Your task to perform on an android device: open app "Life360: Find Family & Friends" (install if not already installed) Image 0: 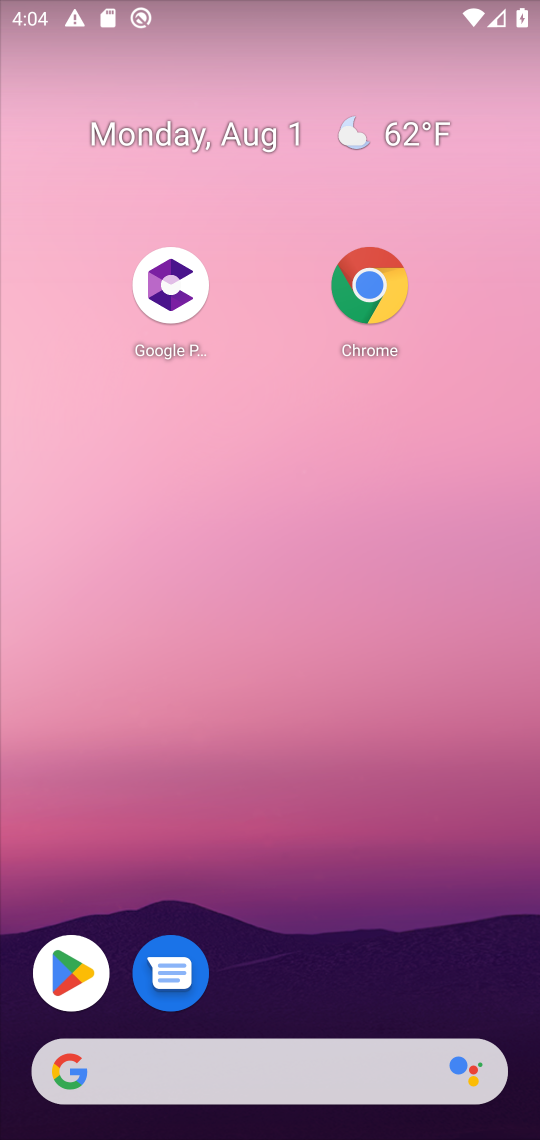
Step 0: drag from (344, 802) to (230, 188)
Your task to perform on an android device: open app "Life360: Find Family & Friends" (install if not already installed) Image 1: 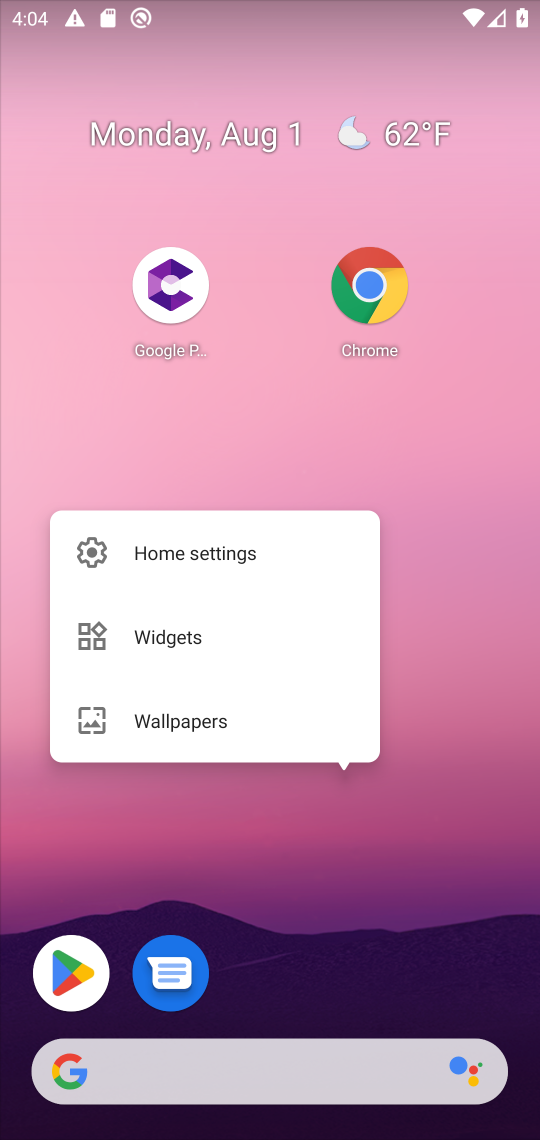
Step 1: click (284, 58)
Your task to perform on an android device: open app "Life360: Find Family & Friends" (install if not already installed) Image 2: 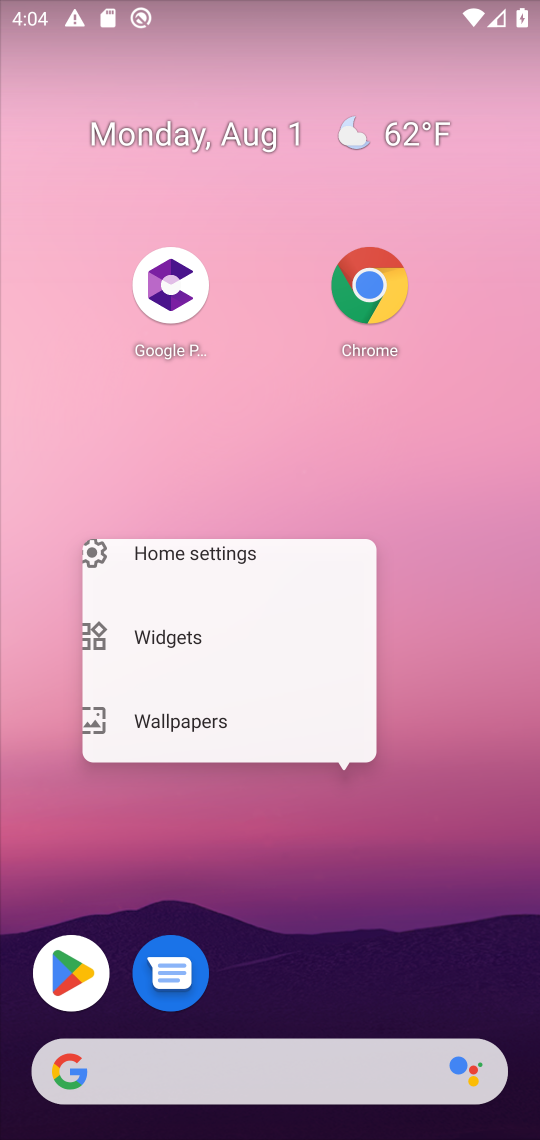
Step 2: drag from (360, 641) to (315, 64)
Your task to perform on an android device: open app "Life360: Find Family & Friends" (install if not already installed) Image 3: 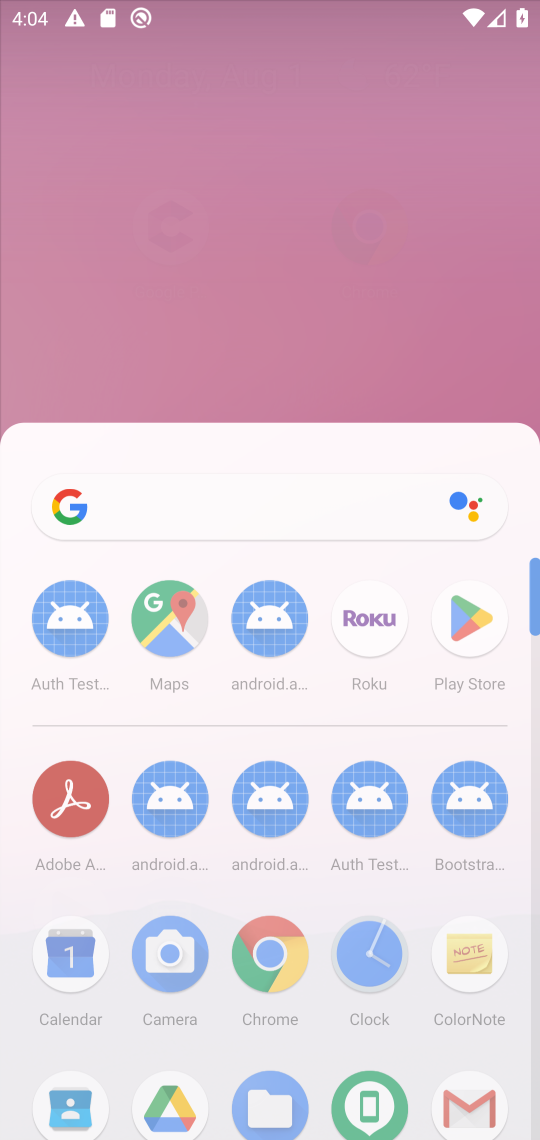
Step 3: drag from (371, 587) to (348, 323)
Your task to perform on an android device: open app "Life360: Find Family & Friends" (install if not already installed) Image 4: 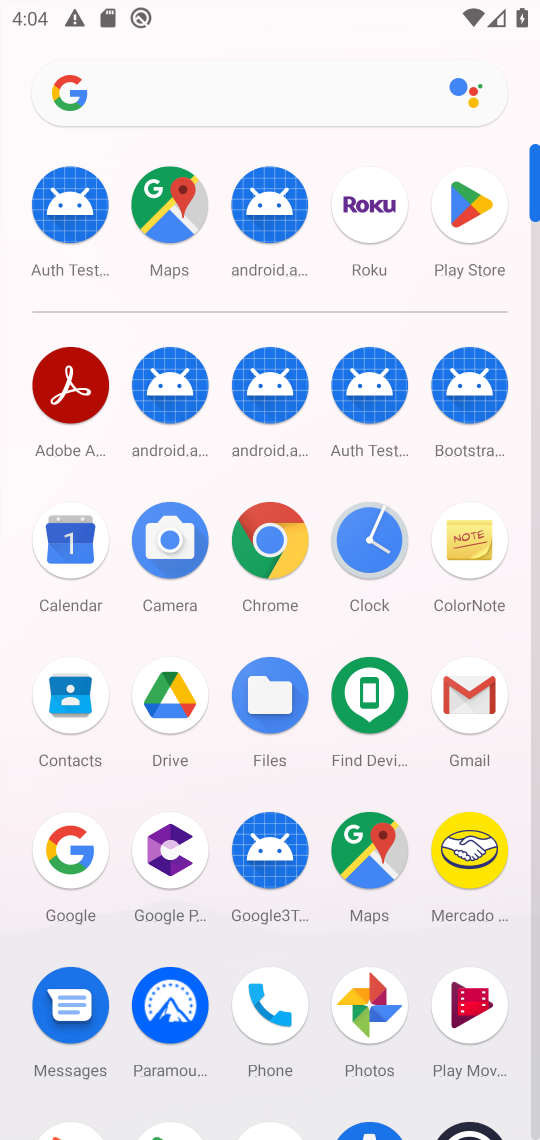
Step 4: drag from (304, 374) to (298, 47)
Your task to perform on an android device: open app "Life360: Find Family & Friends" (install if not already installed) Image 5: 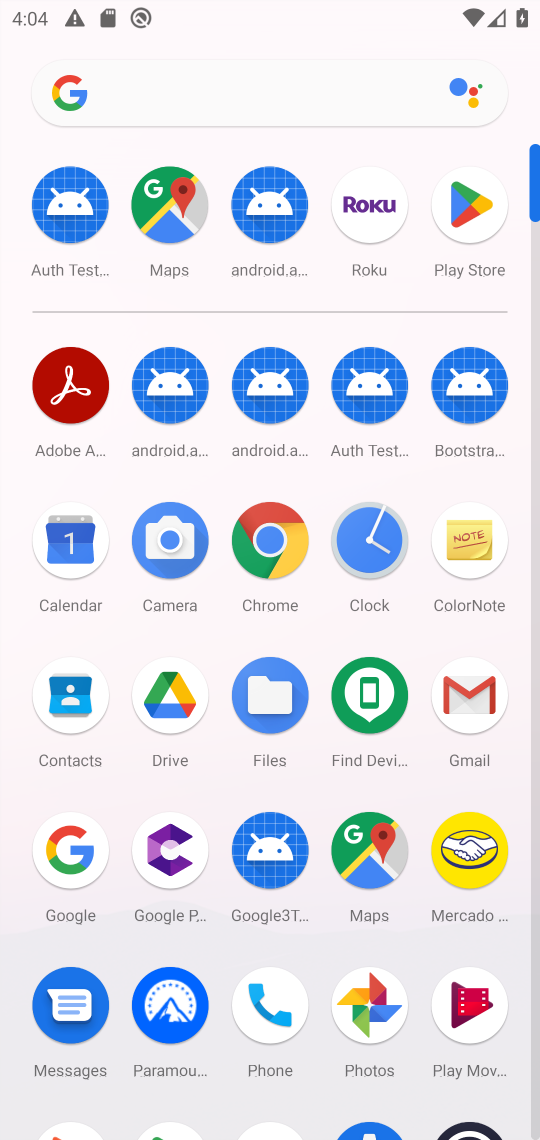
Step 5: click (474, 207)
Your task to perform on an android device: open app "Life360: Find Family & Friends" (install if not already installed) Image 6: 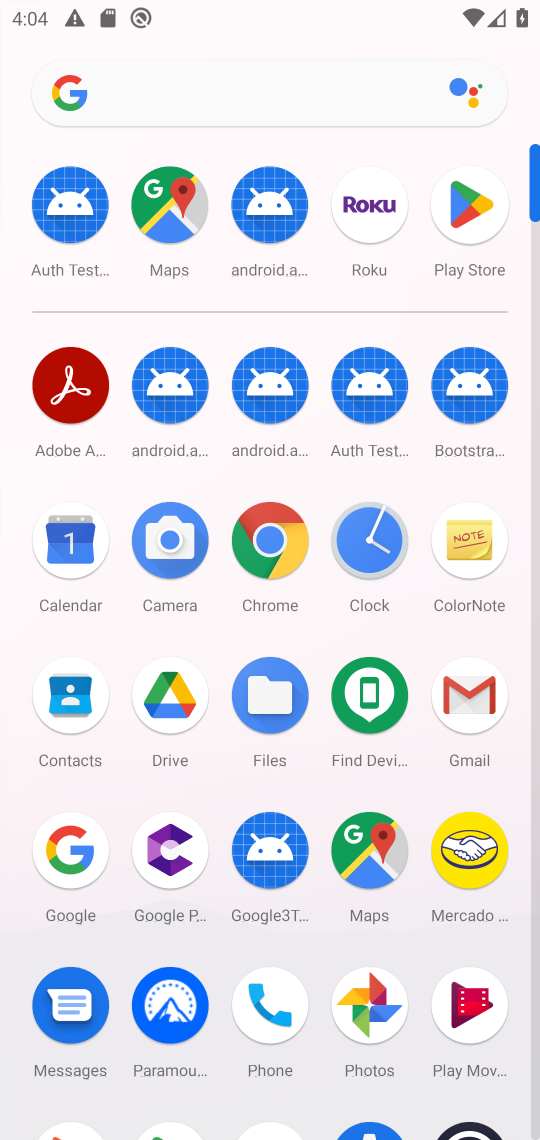
Step 6: click (471, 209)
Your task to perform on an android device: open app "Life360: Find Family & Friends" (install if not already installed) Image 7: 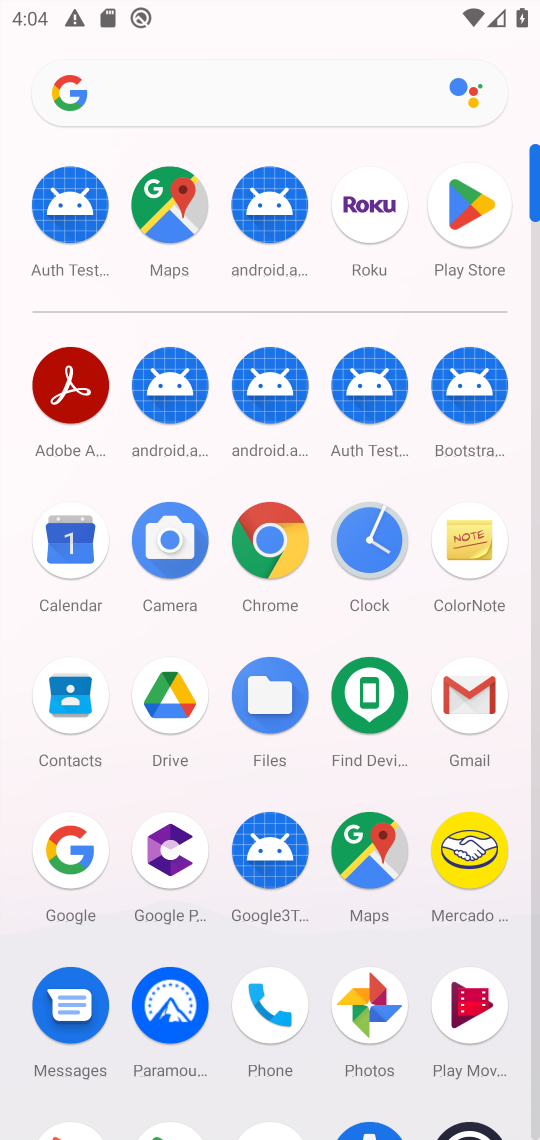
Step 7: click (471, 209)
Your task to perform on an android device: open app "Life360: Find Family & Friends" (install if not already installed) Image 8: 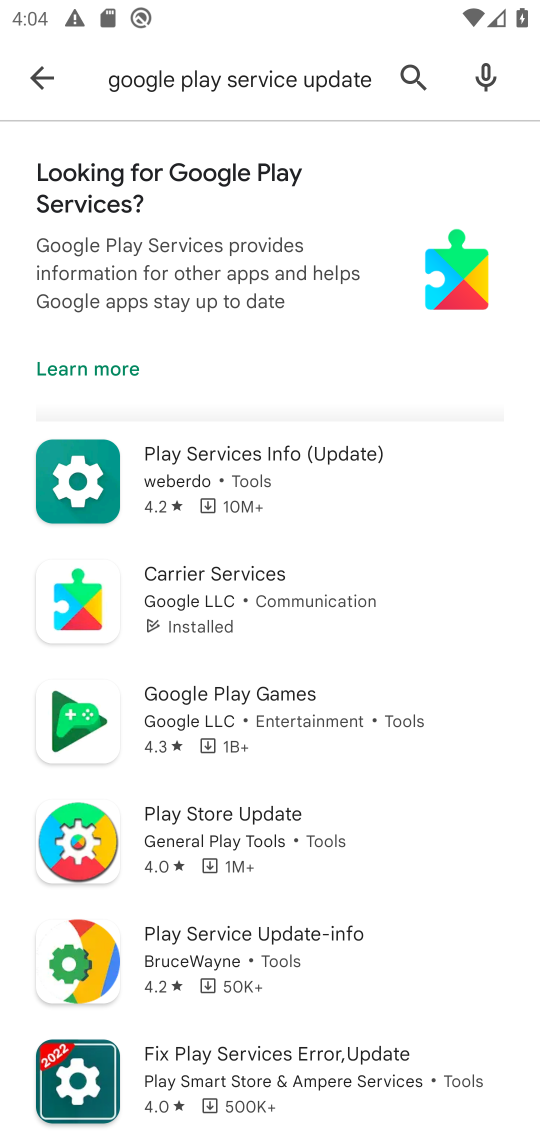
Step 8: click (44, 70)
Your task to perform on an android device: open app "Life360: Find Family & Friends" (install if not already installed) Image 9: 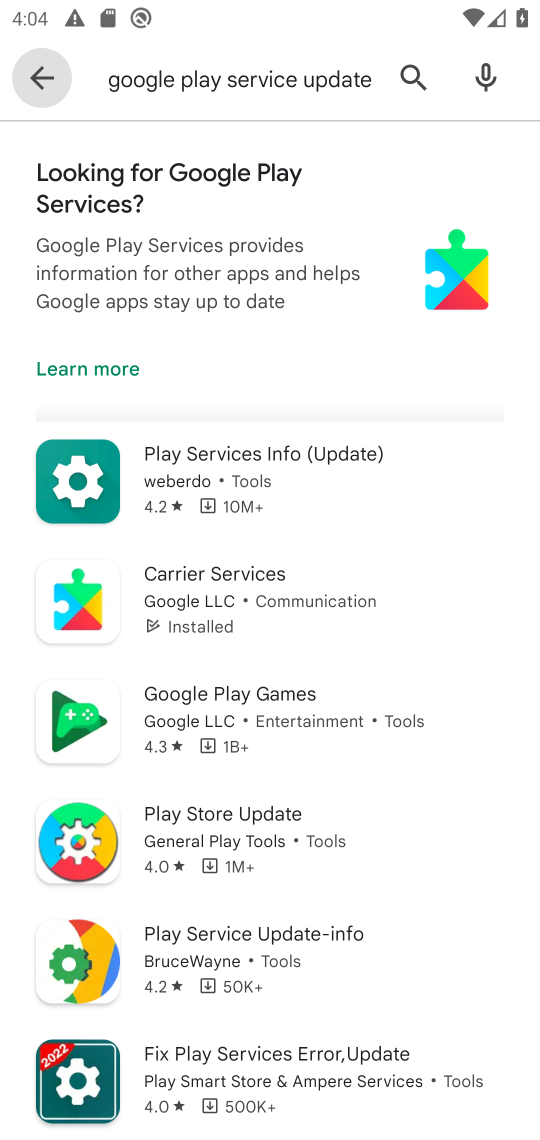
Step 9: click (37, 95)
Your task to perform on an android device: open app "Life360: Find Family & Friends" (install if not already installed) Image 10: 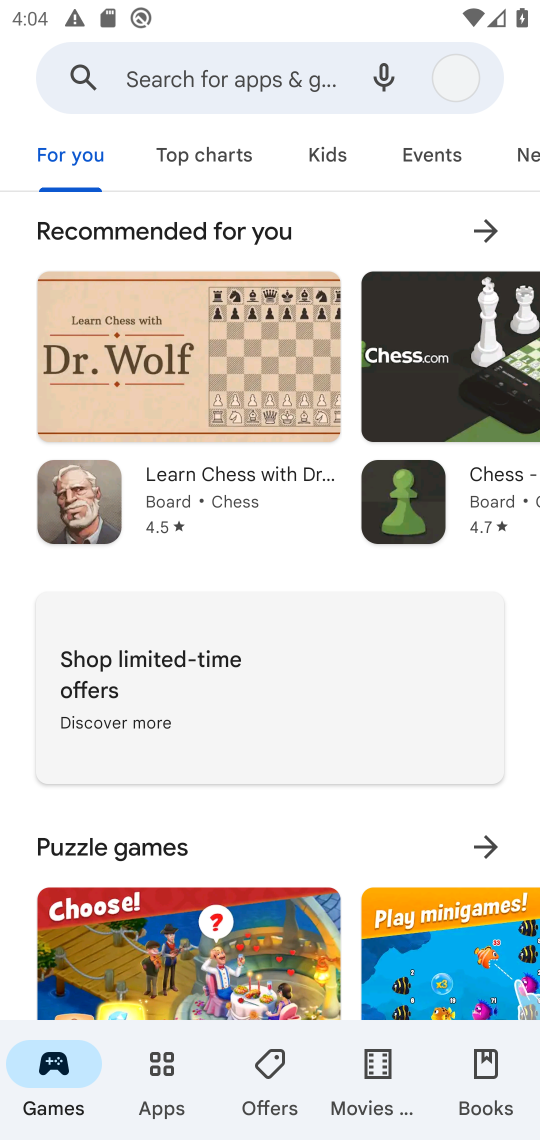
Step 10: click (40, 81)
Your task to perform on an android device: open app "Life360: Find Family & Friends" (install if not already installed) Image 11: 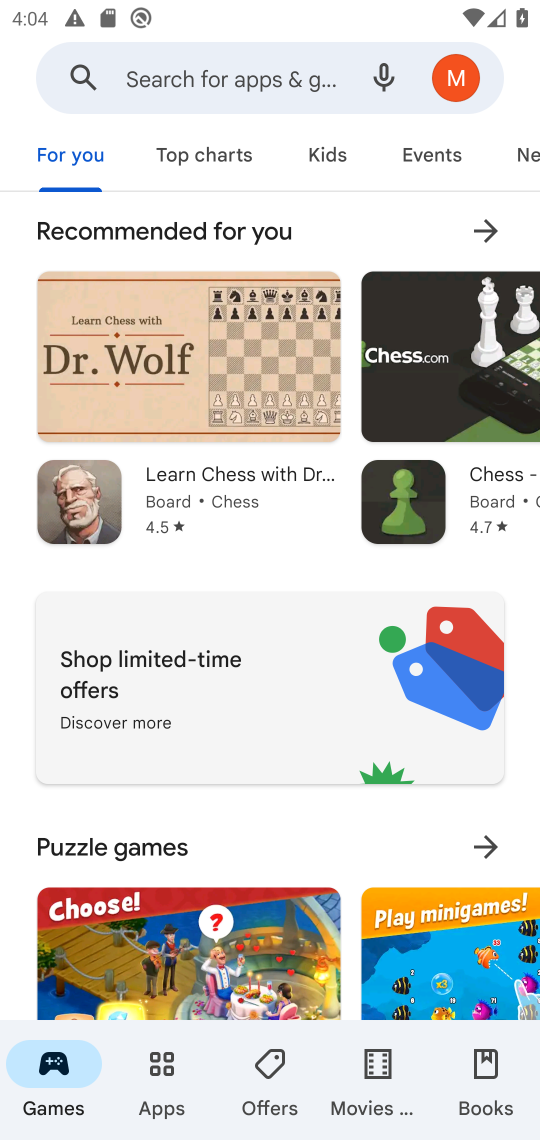
Step 11: click (159, 57)
Your task to perform on an android device: open app "Life360: Find Family & Friends" (install if not already installed) Image 12: 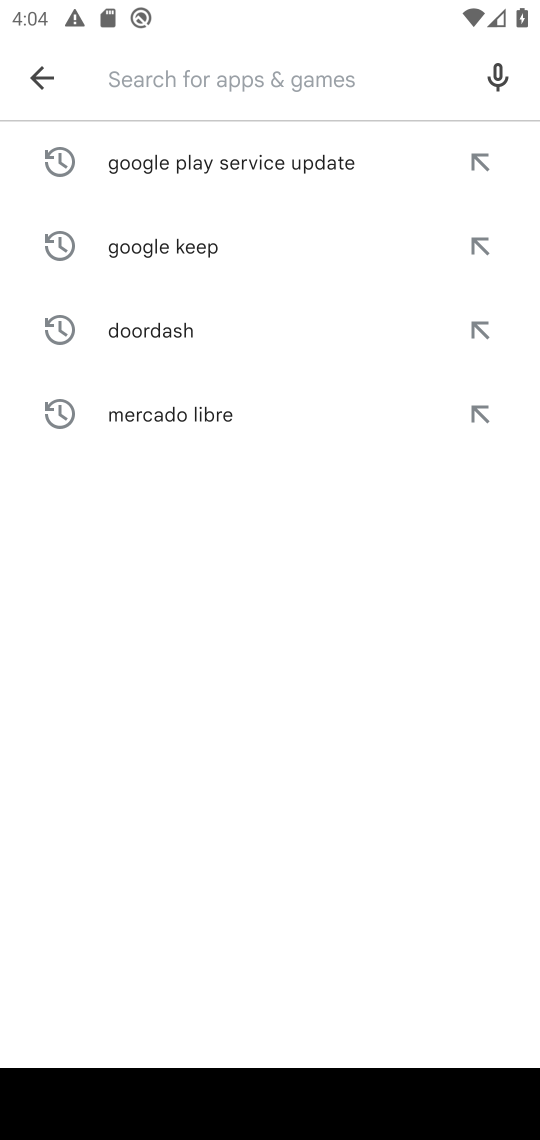
Step 12: type "life360"
Your task to perform on an android device: open app "Life360: Find Family & Friends" (install if not already installed) Image 13: 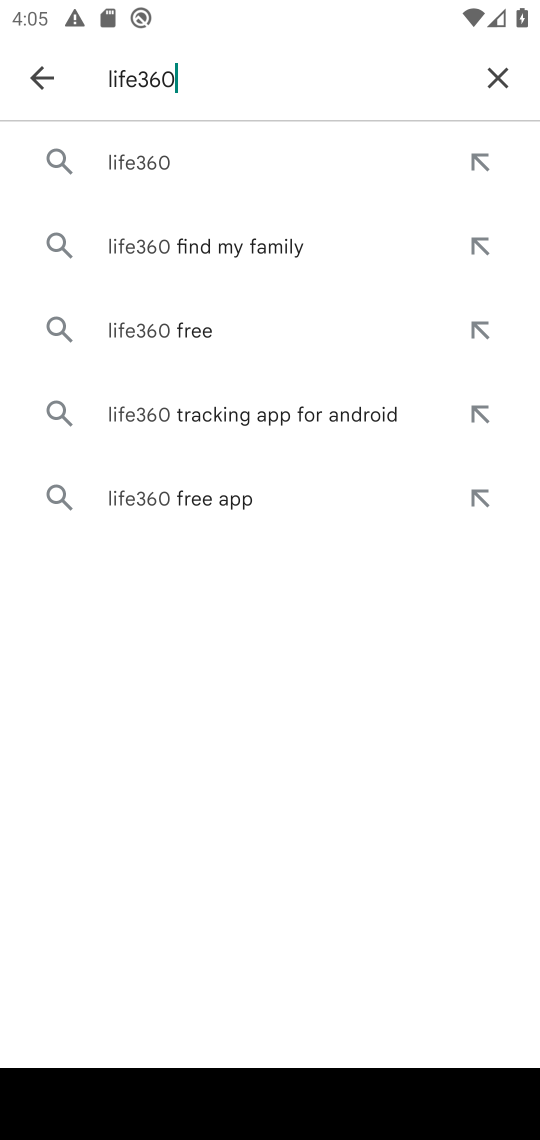
Step 13: click (138, 157)
Your task to perform on an android device: open app "Life360: Find Family & Friends" (install if not already installed) Image 14: 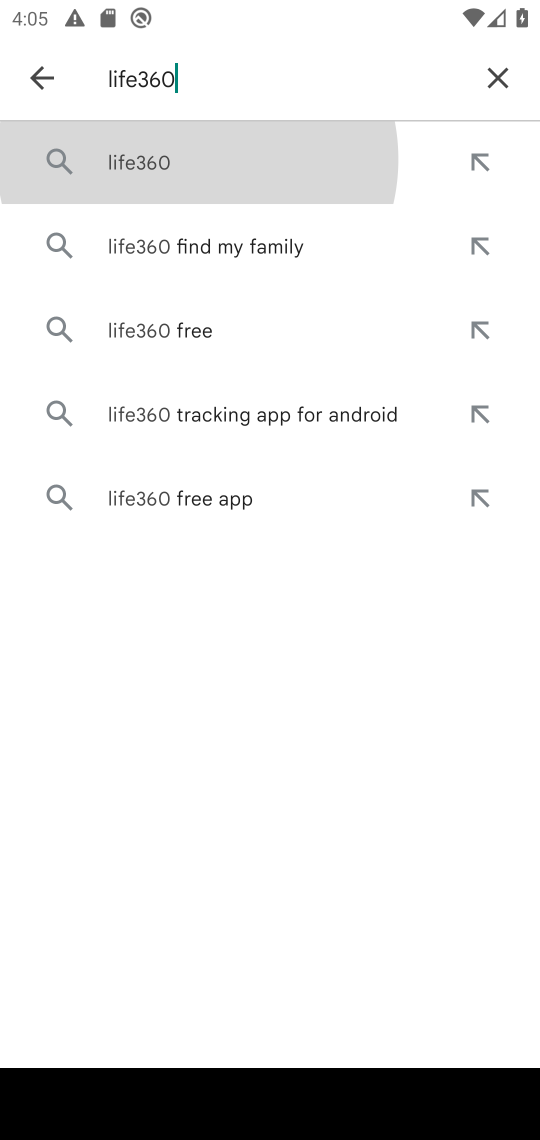
Step 14: click (135, 158)
Your task to perform on an android device: open app "Life360: Find Family & Friends" (install if not already installed) Image 15: 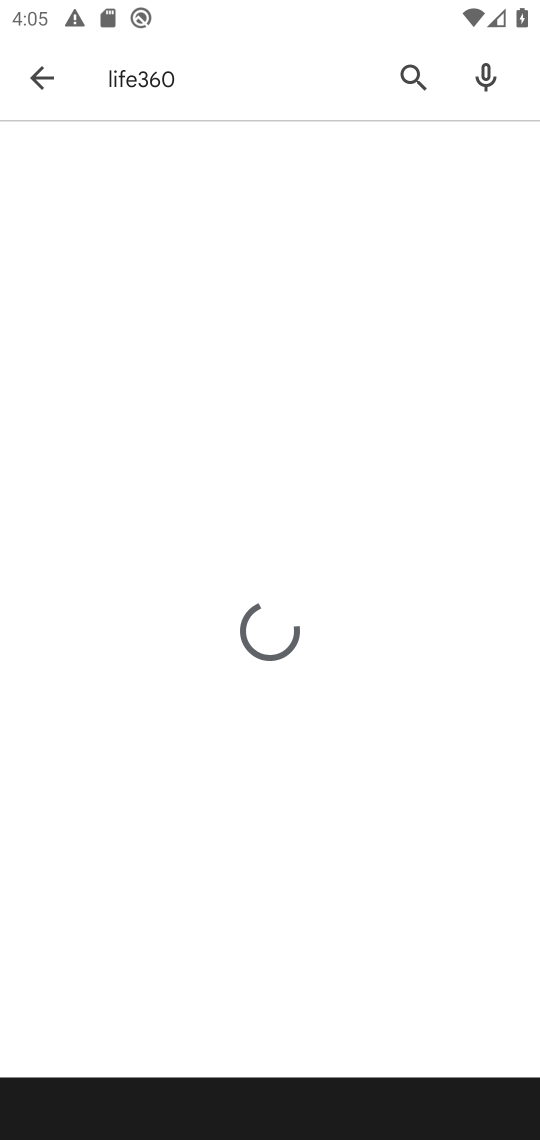
Step 15: click (138, 161)
Your task to perform on an android device: open app "Life360: Find Family & Friends" (install if not already installed) Image 16: 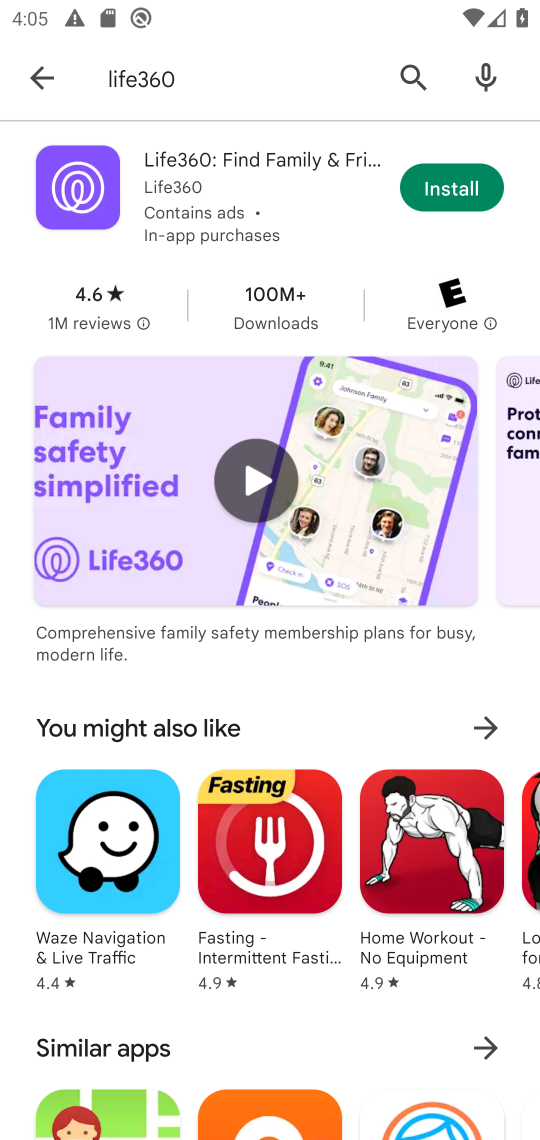
Step 16: click (470, 195)
Your task to perform on an android device: open app "Life360: Find Family & Friends" (install if not already installed) Image 17: 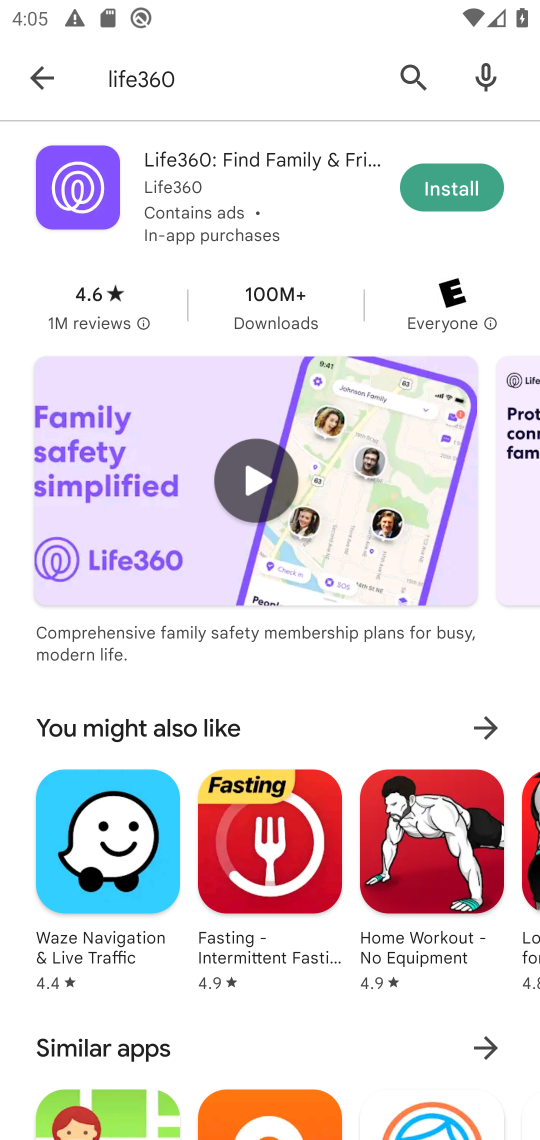
Step 17: click (470, 195)
Your task to perform on an android device: open app "Life360: Find Family & Friends" (install if not already installed) Image 18: 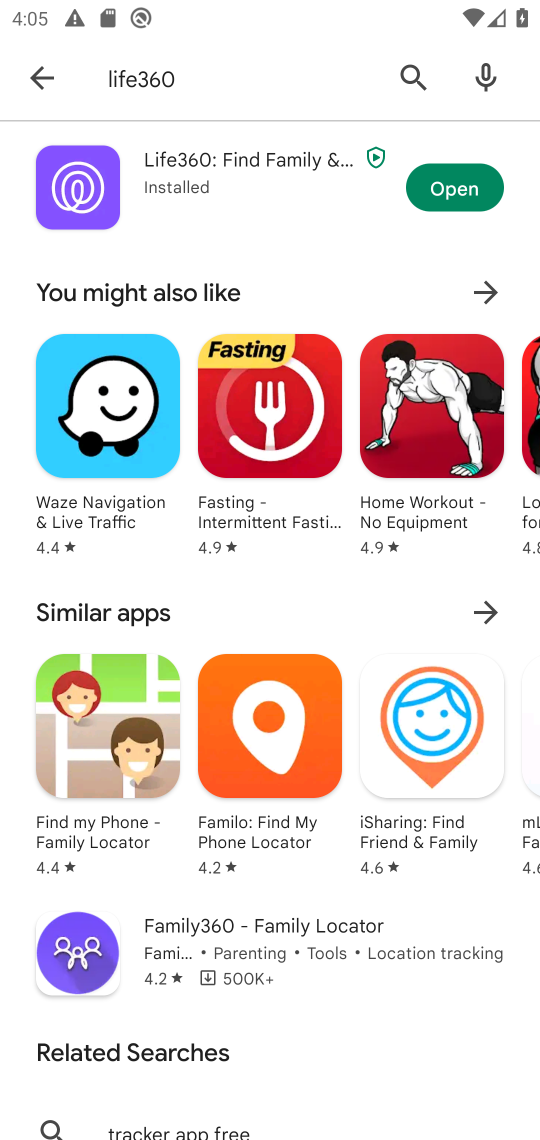
Step 18: click (475, 196)
Your task to perform on an android device: open app "Life360: Find Family & Friends" (install if not already installed) Image 19: 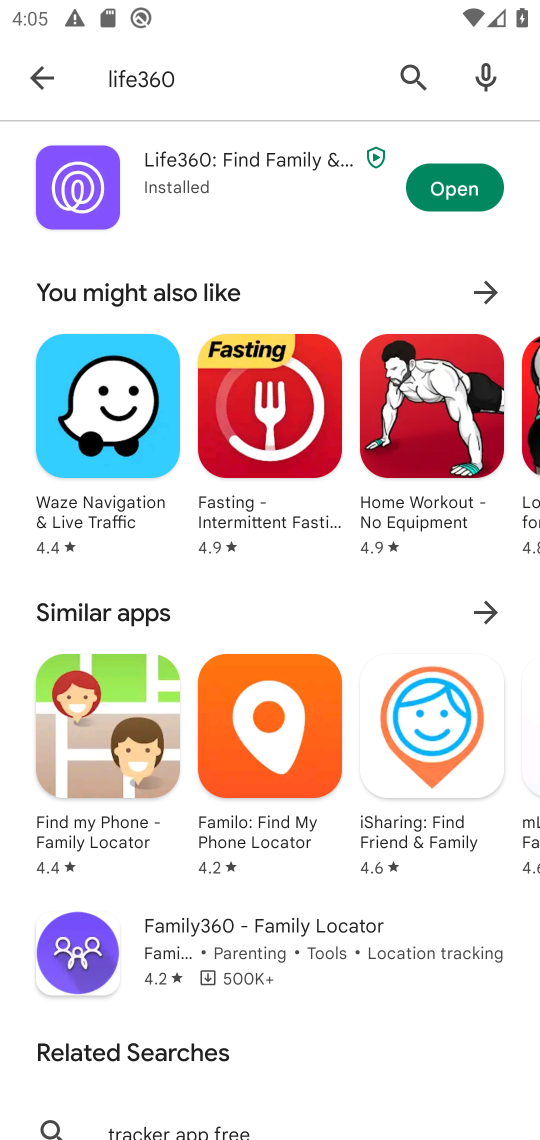
Step 19: click (465, 204)
Your task to perform on an android device: open app "Life360: Find Family & Friends" (install if not already installed) Image 20: 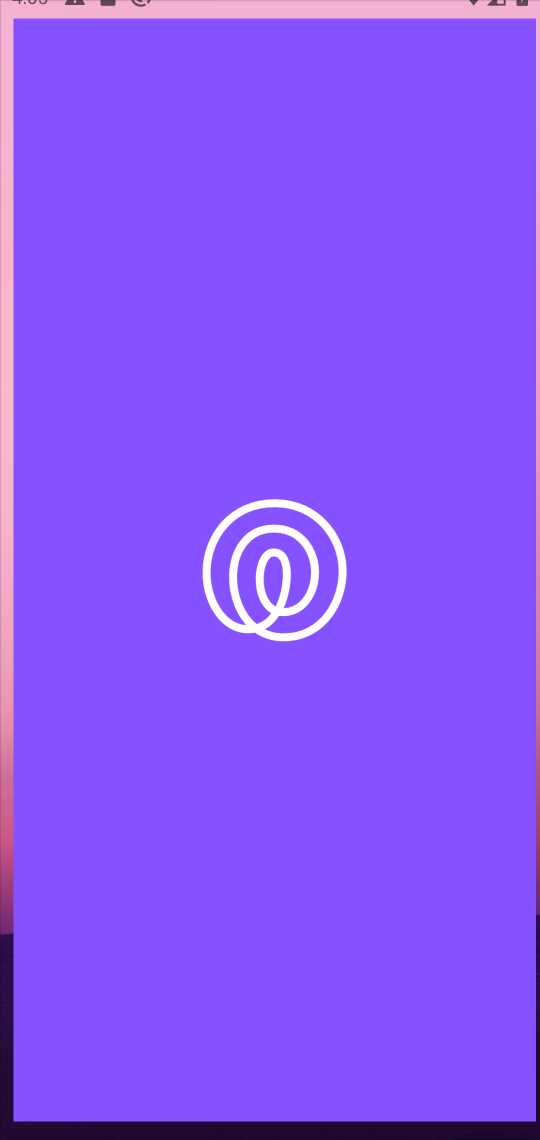
Step 20: click (466, 208)
Your task to perform on an android device: open app "Life360: Find Family & Friends" (install if not already installed) Image 21: 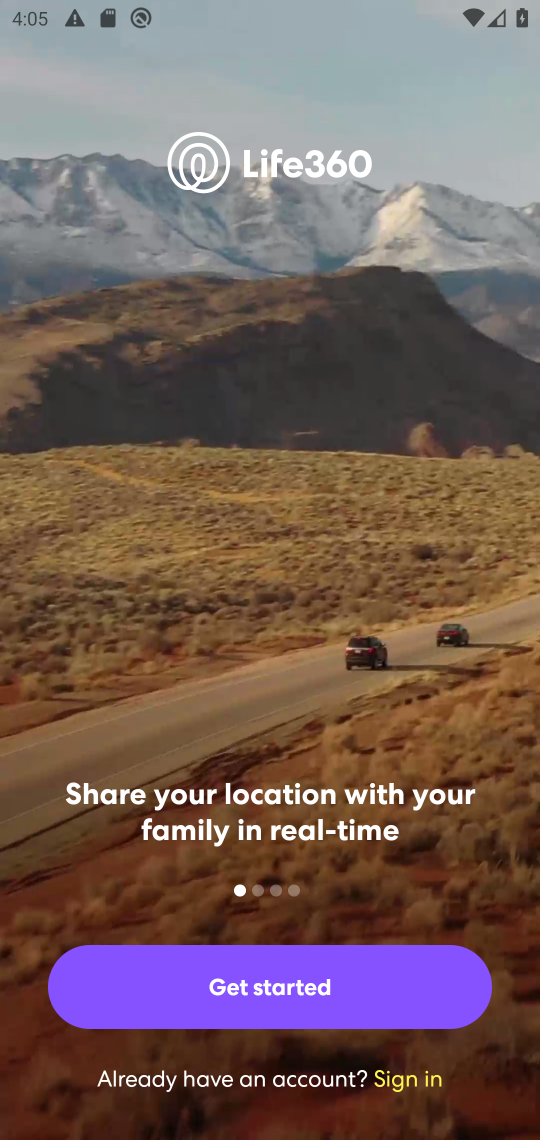
Step 21: task complete